Your task to perform on an android device: toggle javascript in the chrome app Image 0: 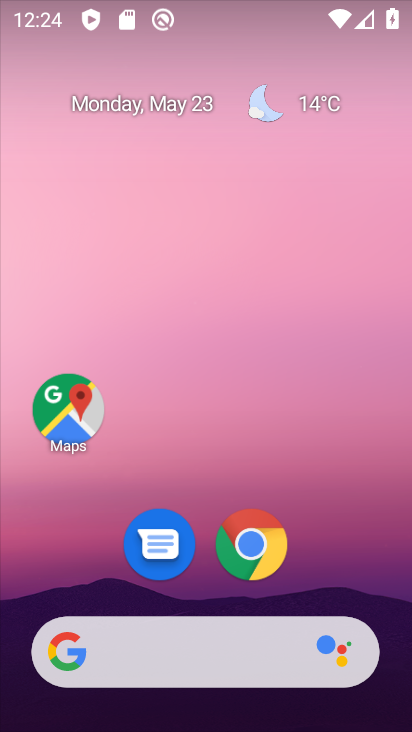
Step 0: click (251, 537)
Your task to perform on an android device: toggle javascript in the chrome app Image 1: 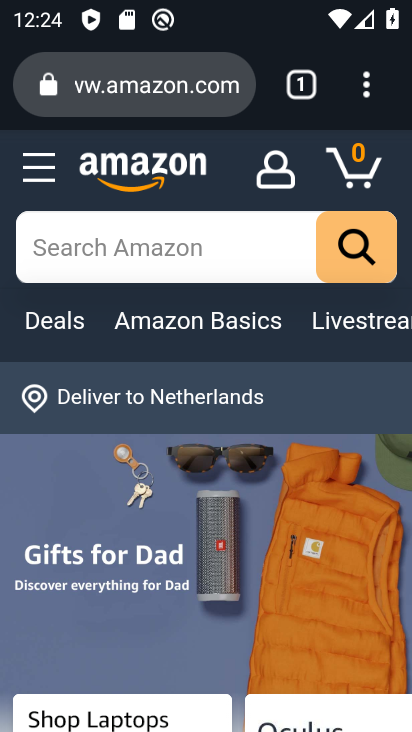
Step 1: drag from (370, 78) to (137, 606)
Your task to perform on an android device: toggle javascript in the chrome app Image 2: 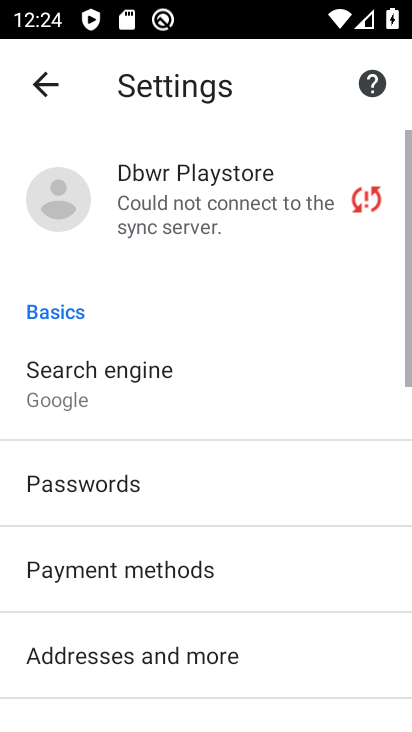
Step 2: drag from (139, 596) to (81, 142)
Your task to perform on an android device: toggle javascript in the chrome app Image 3: 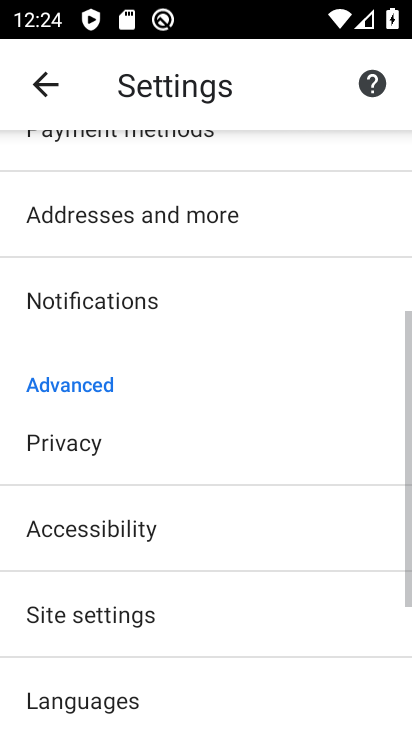
Step 3: drag from (194, 524) to (103, 150)
Your task to perform on an android device: toggle javascript in the chrome app Image 4: 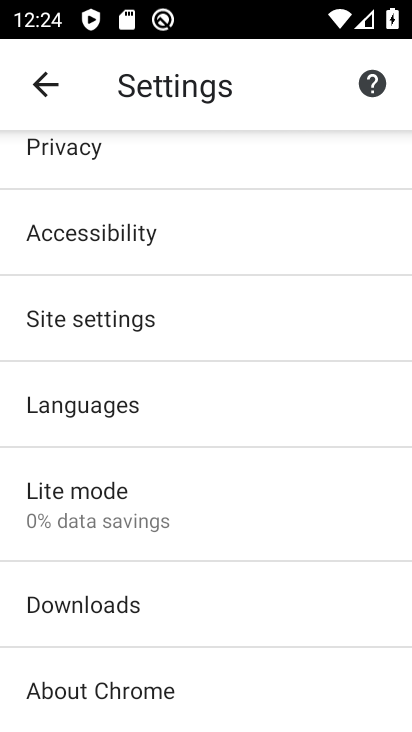
Step 4: click (127, 327)
Your task to perform on an android device: toggle javascript in the chrome app Image 5: 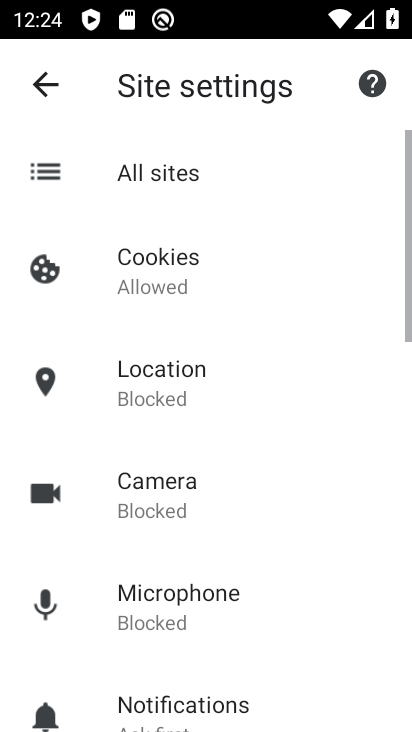
Step 5: drag from (190, 608) to (126, 186)
Your task to perform on an android device: toggle javascript in the chrome app Image 6: 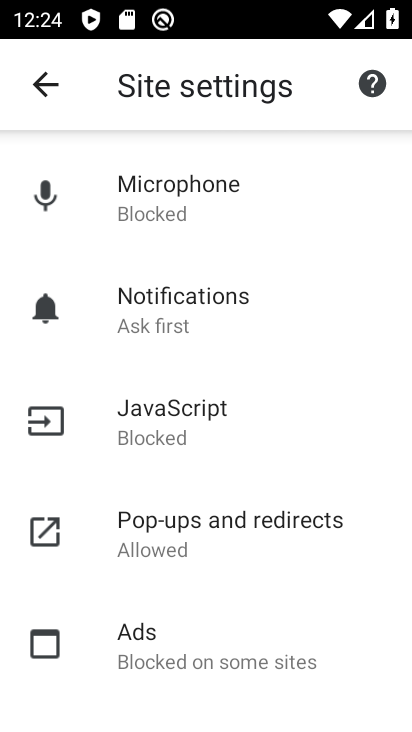
Step 6: click (146, 414)
Your task to perform on an android device: toggle javascript in the chrome app Image 7: 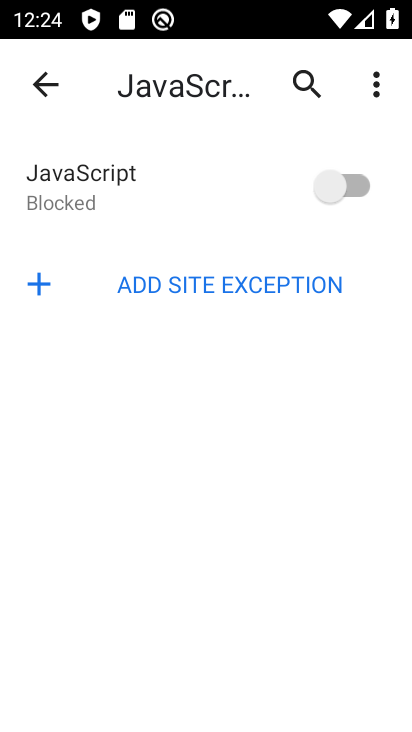
Step 7: click (353, 183)
Your task to perform on an android device: toggle javascript in the chrome app Image 8: 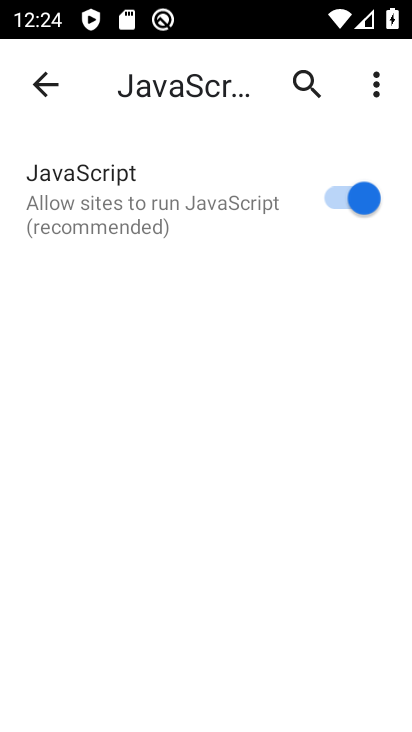
Step 8: task complete